Your task to perform on an android device: change keyboard looks Image 0: 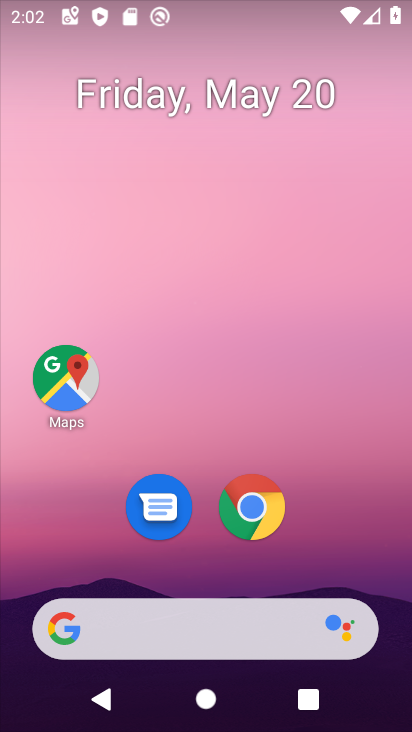
Step 0: drag from (231, 716) to (231, 111)
Your task to perform on an android device: change keyboard looks Image 1: 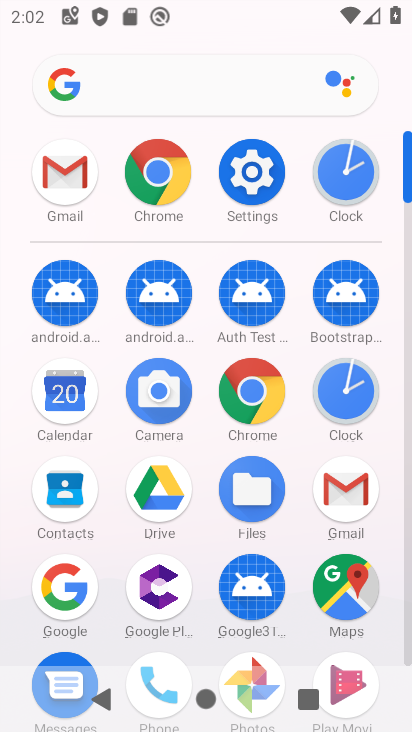
Step 1: click (249, 159)
Your task to perform on an android device: change keyboard looks Image 2: 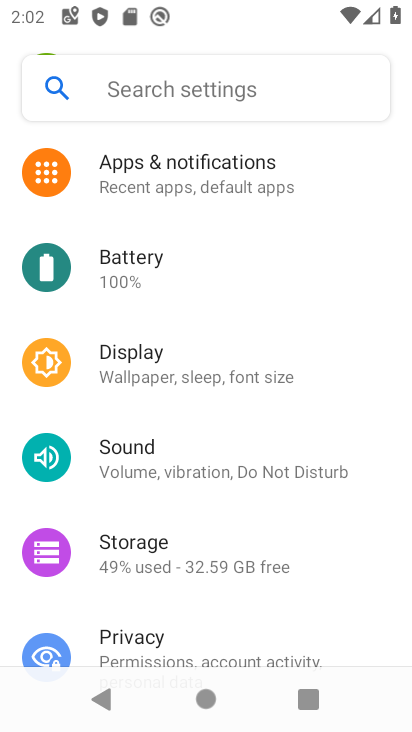
Step 2: drag from (231, 600) to (227, 161)
Your task to perform on an android device: change keyboard looks Image 3: 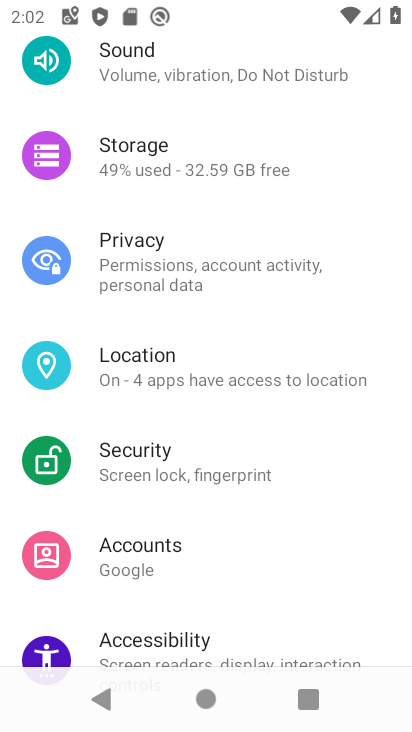
Step 3: drag from (181, 566) to (182, 180)
Your task to perform on an android device: change keyboard looks Image 4: 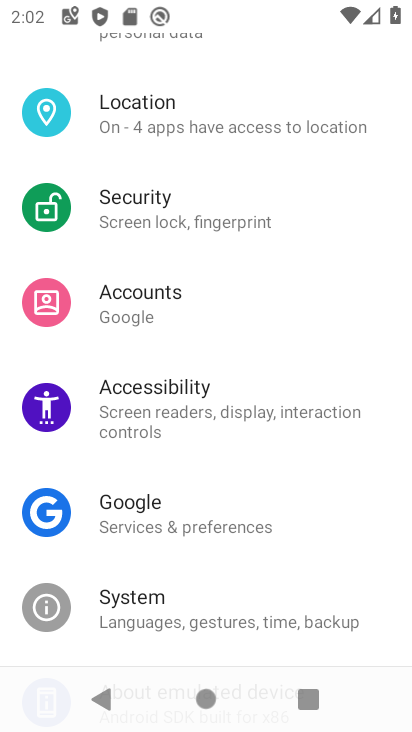
Step 4: drag from (186, 588) to (186, 114)
Your task to perform on an android device: change keyboard looks Image 5: 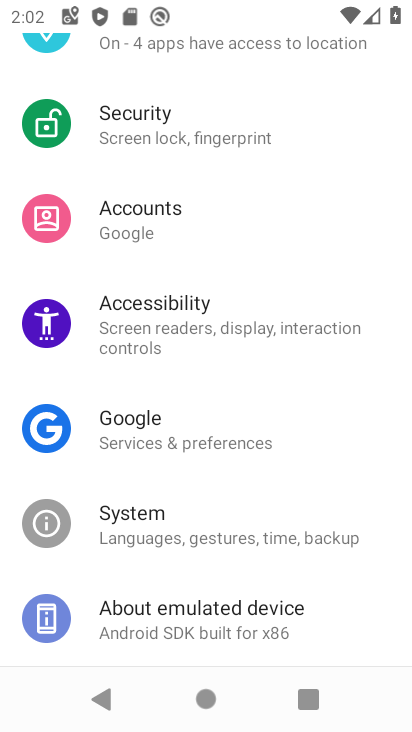
Step 5: click (119, 521)
Your task to perform on an android device: change keyboard looks Image 6: 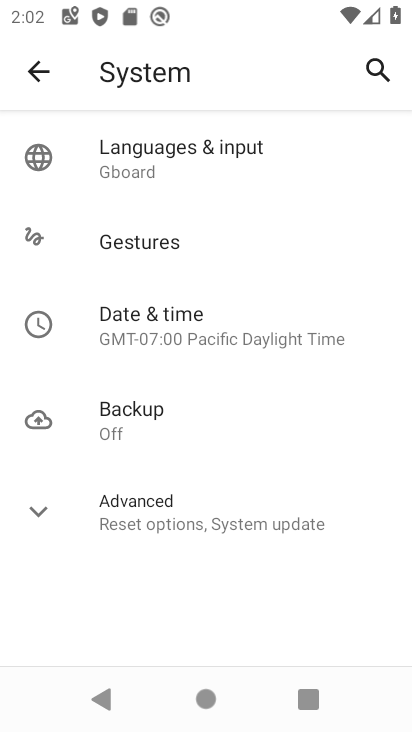
Step 6: click (135, 156)
Your task to perform on an android device: change keyboard looks Image 7: 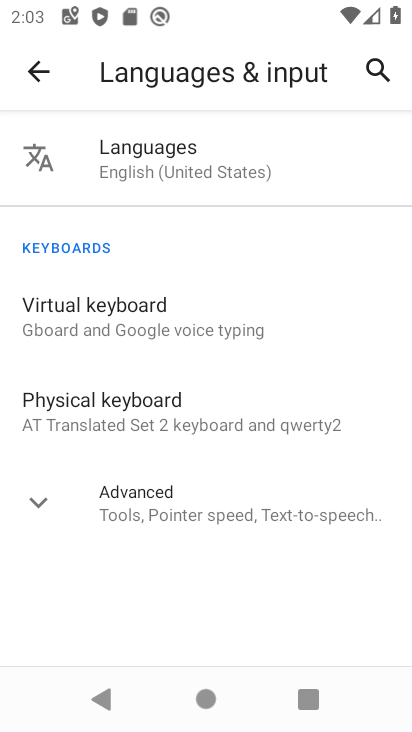
Step 7: click (72, 308)
Your task to perform on an android device: change keyboard looks Image 8: 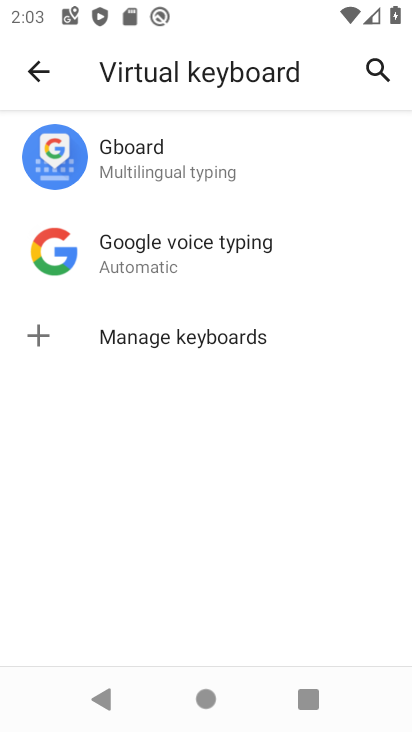
Step 8: click (156, 159)
Your task to perform on an android device: change keyboard looks Image 9: 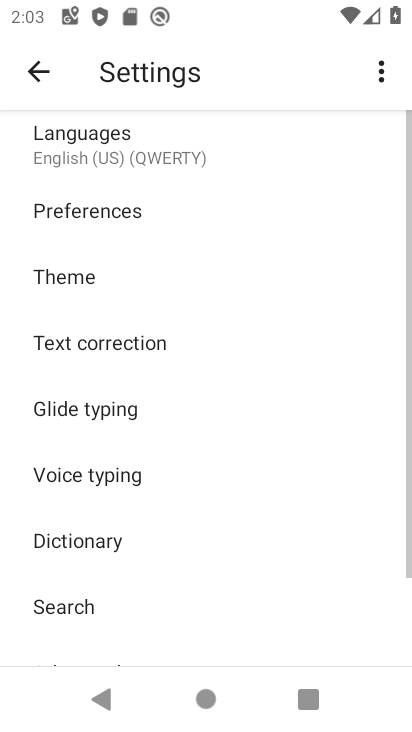
Step 9: click (52, 277)
Your task to perform on an android device: change keyboard looks Image 10: 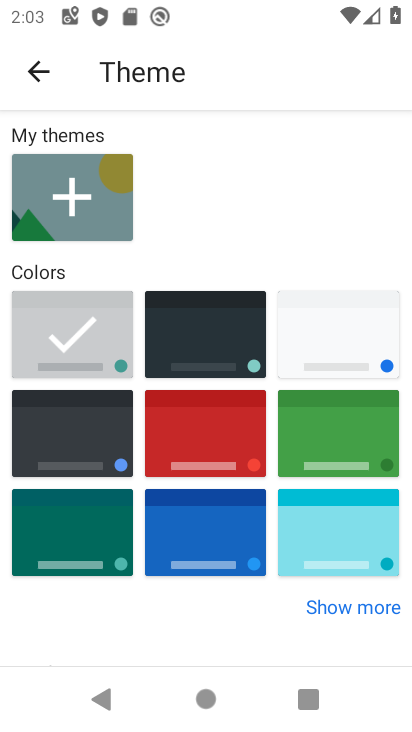
Step 10: click (207, 340)
Your task to perform on an android device: change keyboard looks Image 11: 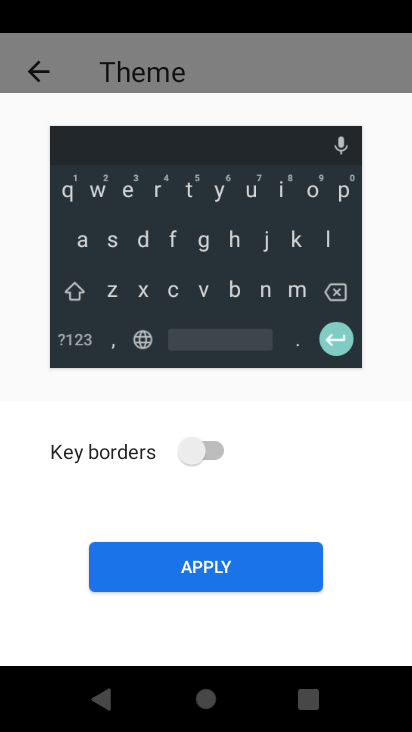
Step 11: click (212, 447)
Your task to perform on an android device: change keyboard looks Image 12: 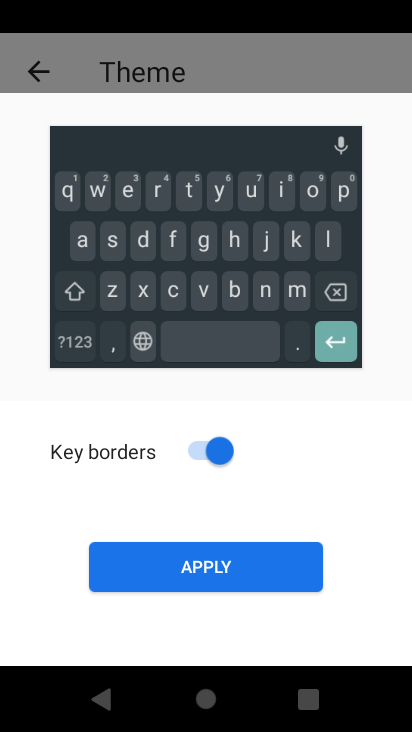
Step 12: click (223, 562)
Your task to perform on an android device: change keyboard looks Image 13: 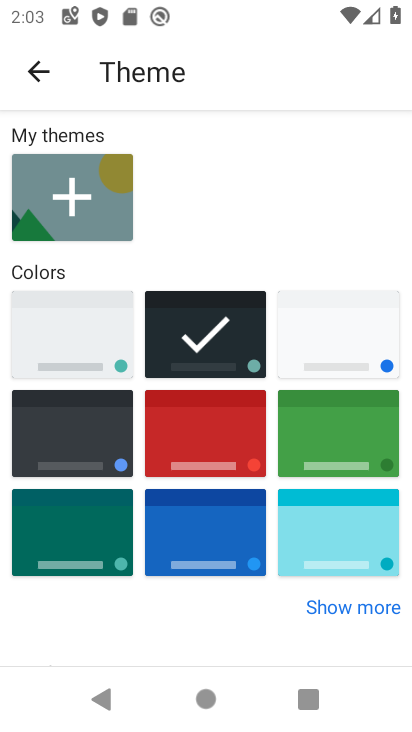
Step 13: task complete